Your task to perform on an android device: Open maps Image 0: 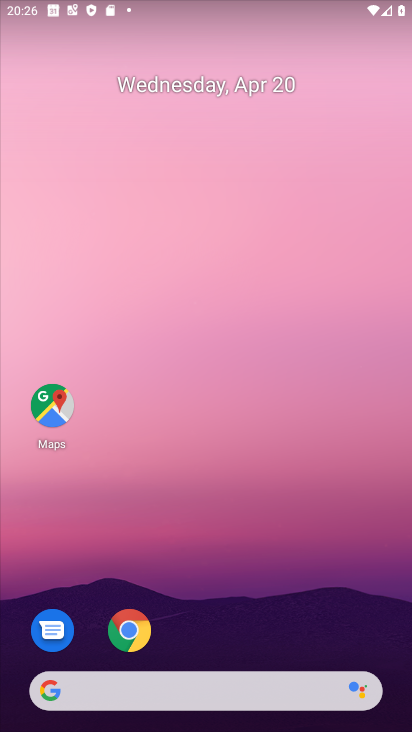
Step 0: click (67, 415)
Your task to perform on an android device: Open maps Image 1: 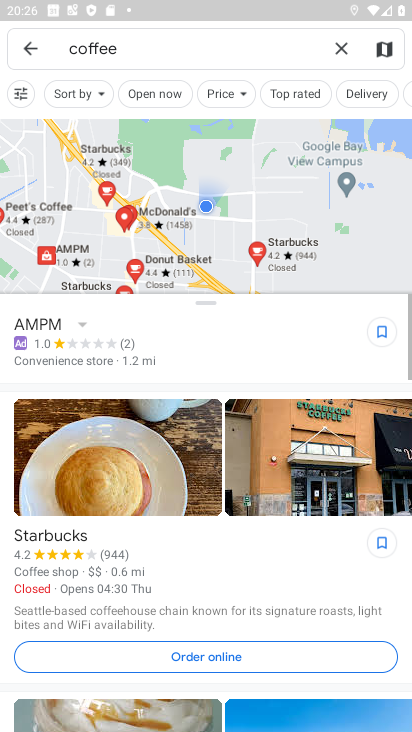
Step 1: task complete